Your task to perform on an android device: Go to Google maps Image 0: 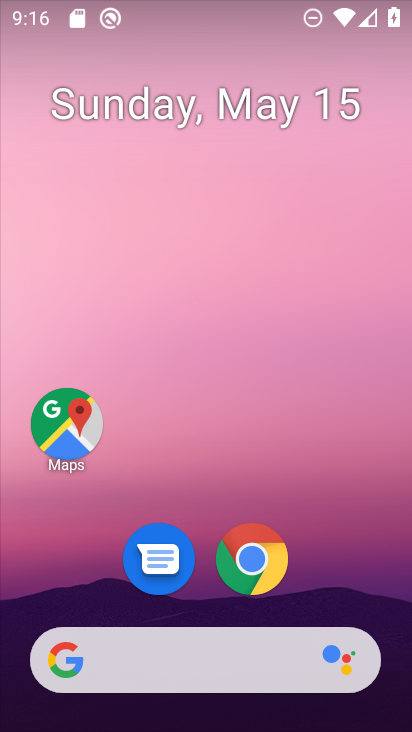
Step 0: click (89, 431)
Your task to perform on an android device: Go to Google maps Image 1: 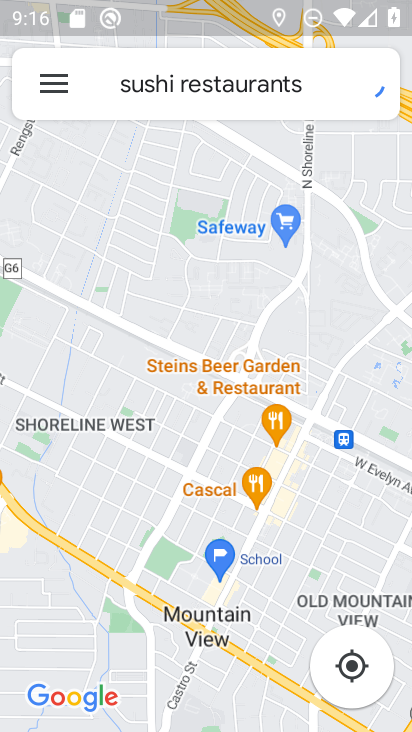
Step 1: task complete